Your task to perform on an android device: change keyboard looks Image 0: 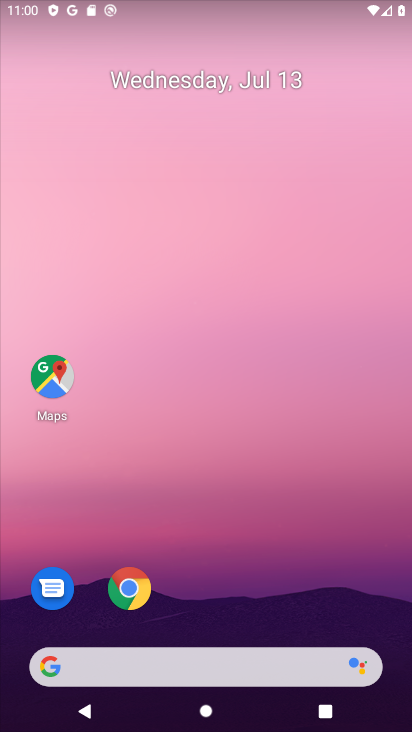
Step 0: drag from (236, 522) to (256, 55)
Your task to perform on an android device: change keyboard looks Image 1: 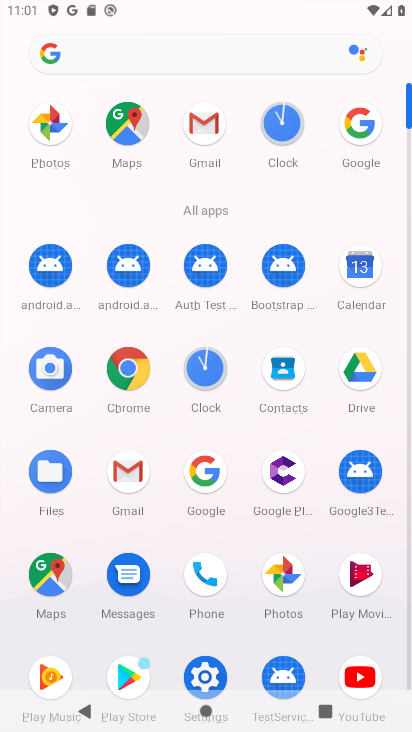
Step 1: click (207, 672)
Your task to perform on an android device: change keyboard looks Image 2: 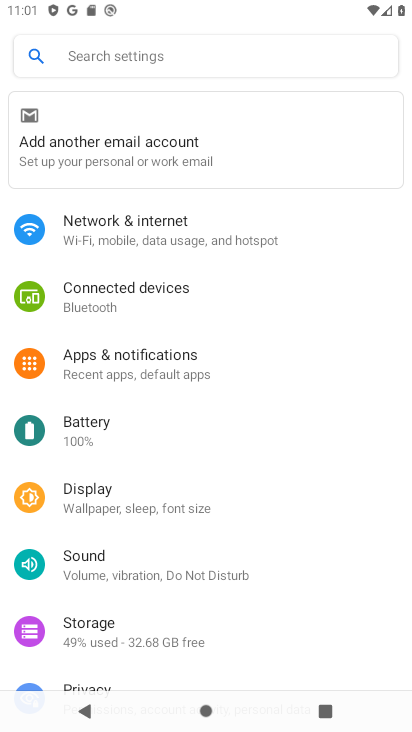
Step 2: drag from (177, 612) to (201, 200)
Your task to perform on an android device: change keyboard looks Image 3: 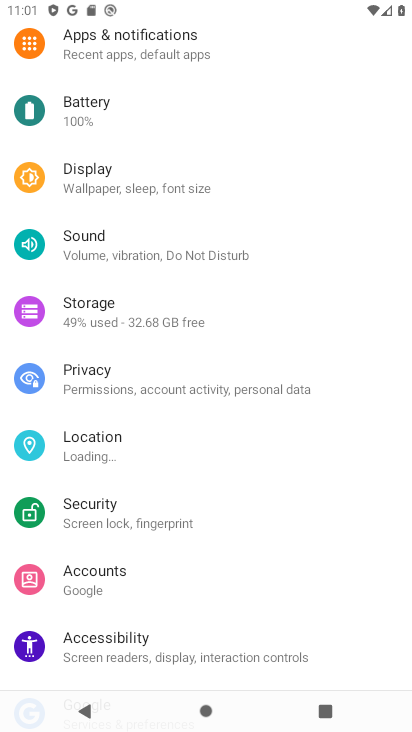
Step 3: drag from (147, 629) to (149, 223)
Your task to perform on an android device: change keyboard looks Image 4: 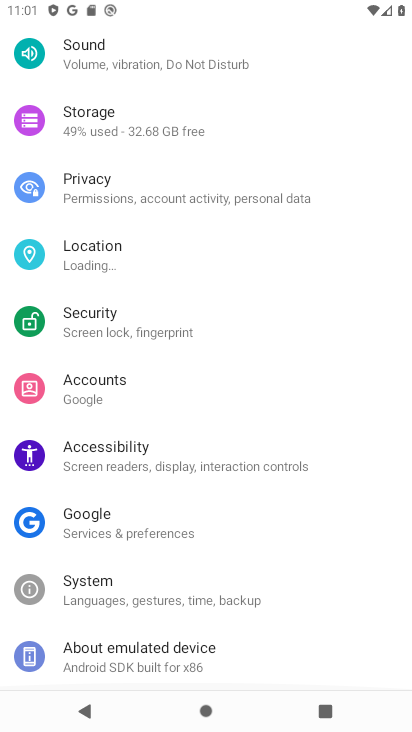
Step 4: click (107, 599)
Your task to perform on an android device: change keyboard looks Image 5: 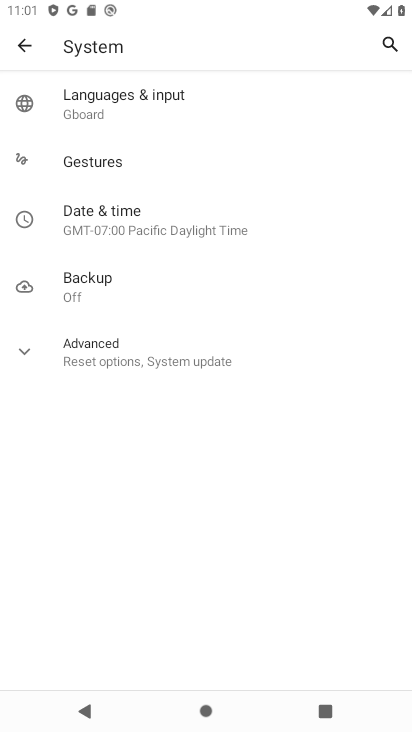
Step 5: click (126, 116)
Your task to perform on an android device: change keyboard looks Image 6: 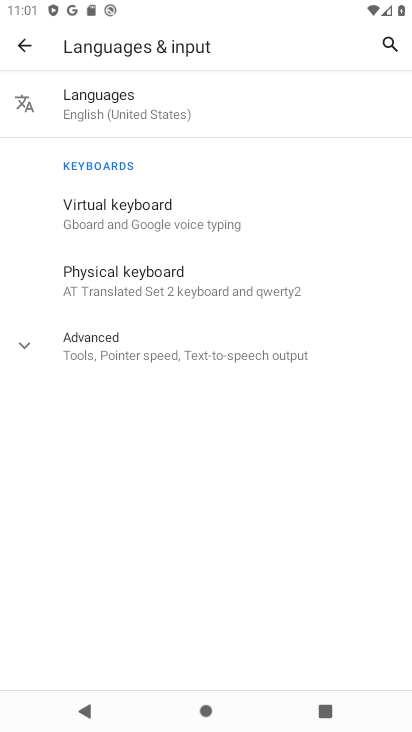
Step 6: click (117, 207)
Your task to perform on an android device: change keyboard looks Image 7: 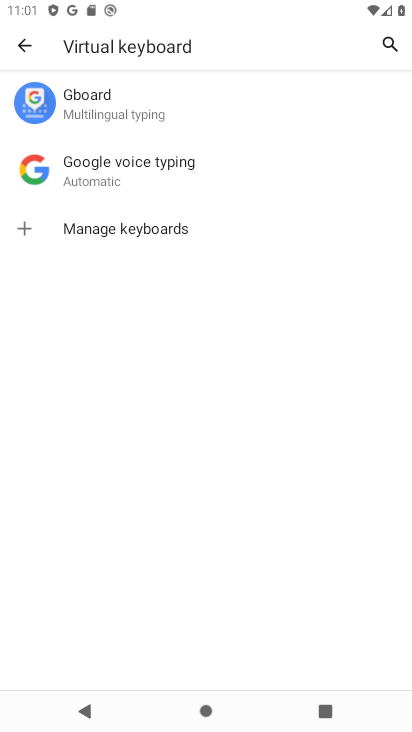
Step 7: click (110, 72)
Your task to perform on an android device: change keyboard looks Image 8: 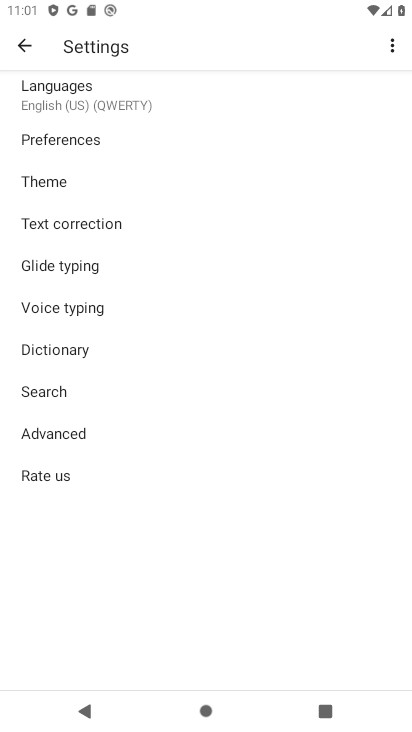
Step 8: click (56, 179)
Your task to perform on an android device: change keyboard looks Image 9: 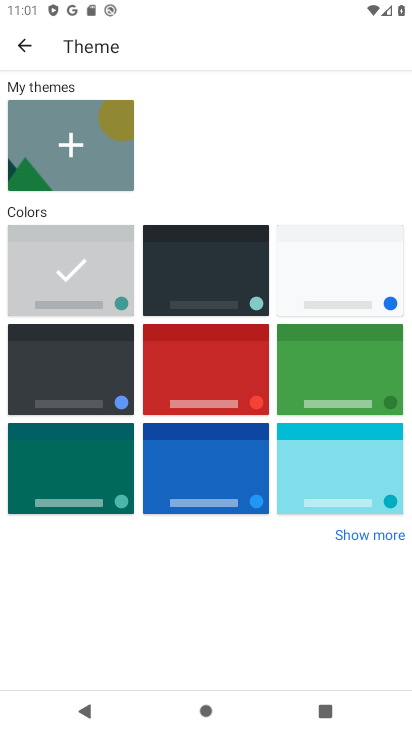
Step 9: click (211, 265)
Your task to perform on an android device: change keyboard looks Image 10: 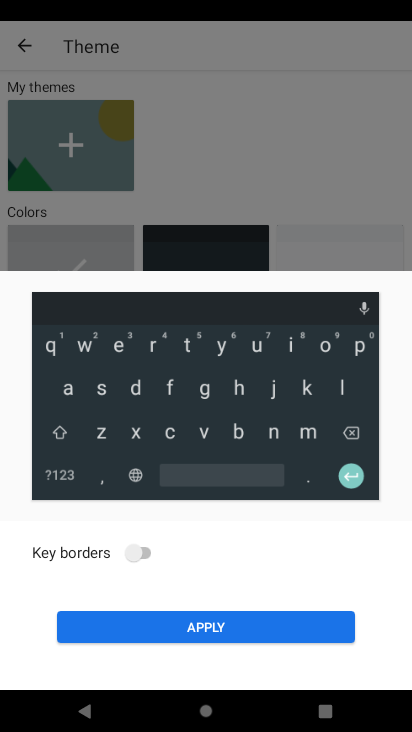
Step 10: click (216, 625)
Your task to perform on an android device: change keyboard looks Image 11: 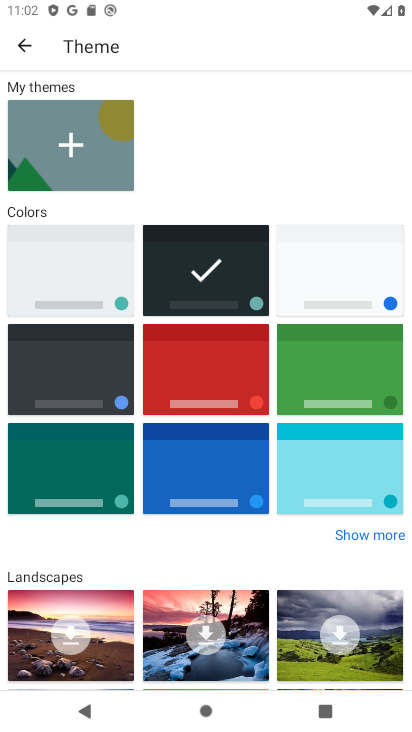
Step 11: task complete